Your task to perform on an android device: set the stopwatch Image 0: 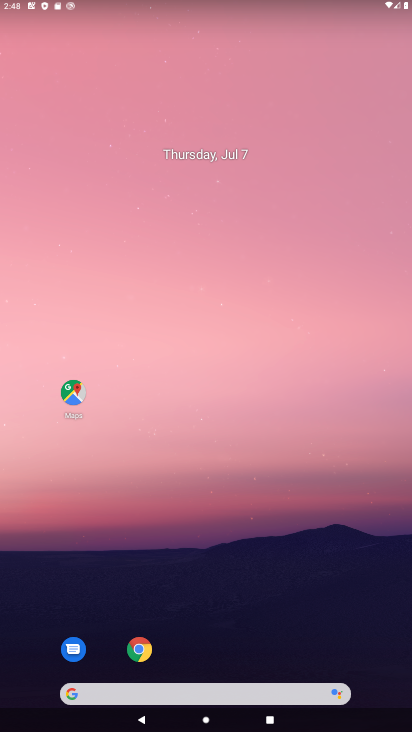
Step 0: drag from (158, 656) to (204, 4)
Your task to perform on an android device: set the stopwatch Image 1: 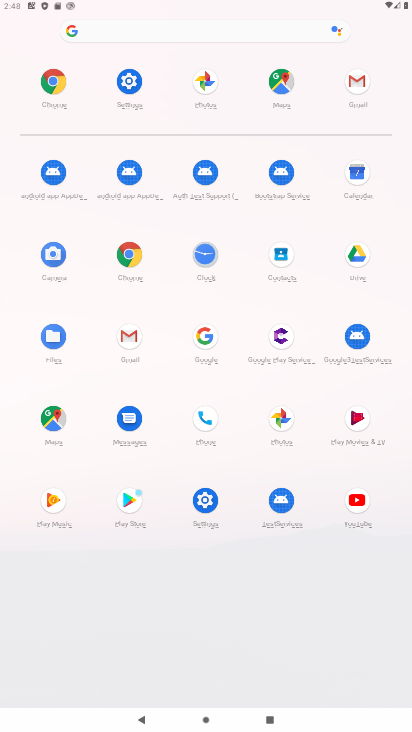
Step 1: click (196, 254)
Your task to perform on an android device: set the stopwatch Image 2: 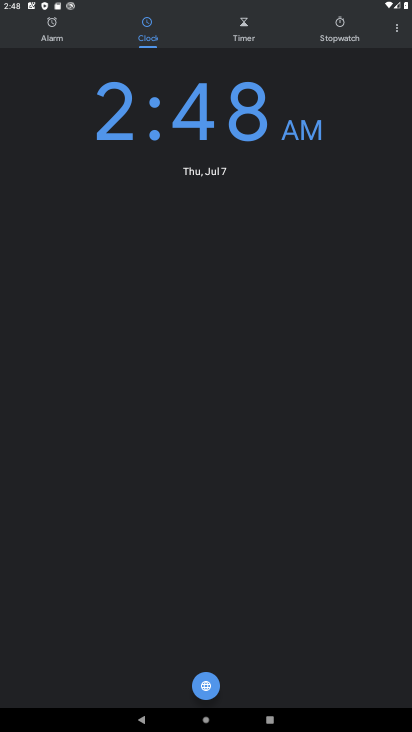
Step 2: click (342, 29)
Your task to perform on an android device: set the stopwatch Image 3: 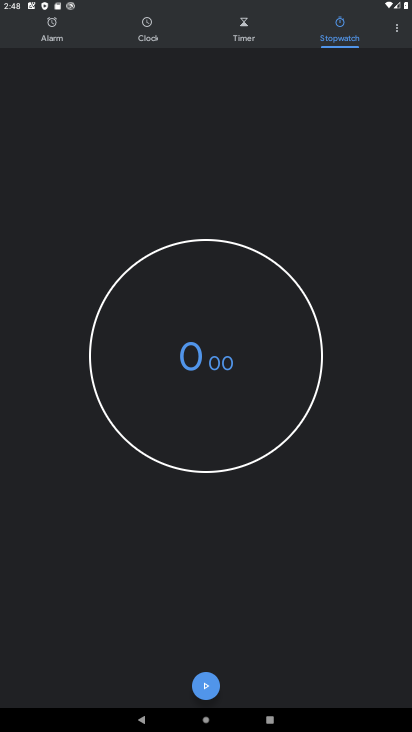
Step 3: click (211, 684)
Your task to perform on an android device: set the stopwatch Image 4: 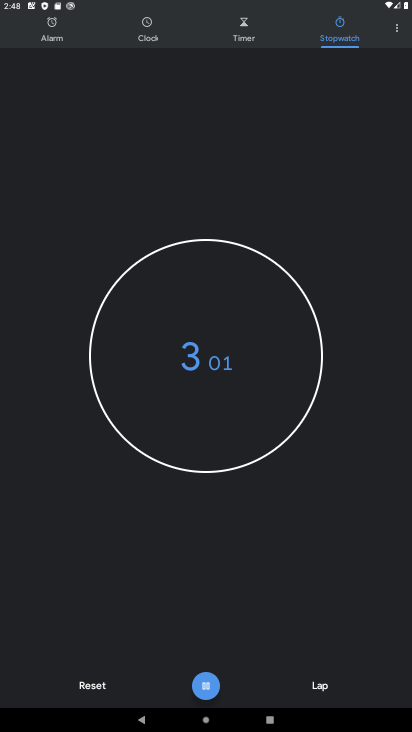
Step 4: task complete